Your task to perform on an android device: Open eBay Image 0: 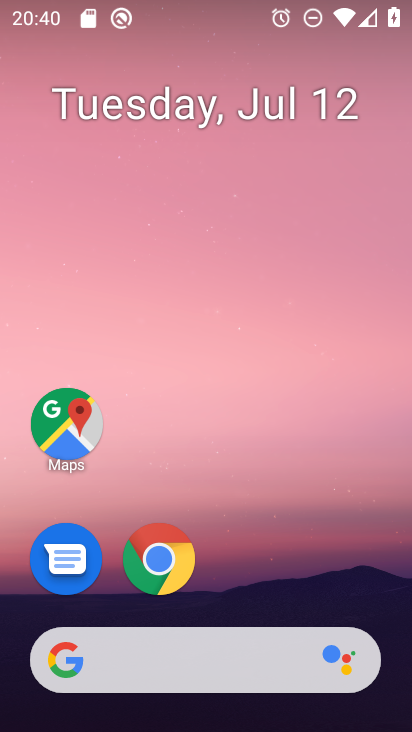
Step 0: drag from (370, 579) to (371, 108)
Your task to perform on an android device: Open eBay Image 1: 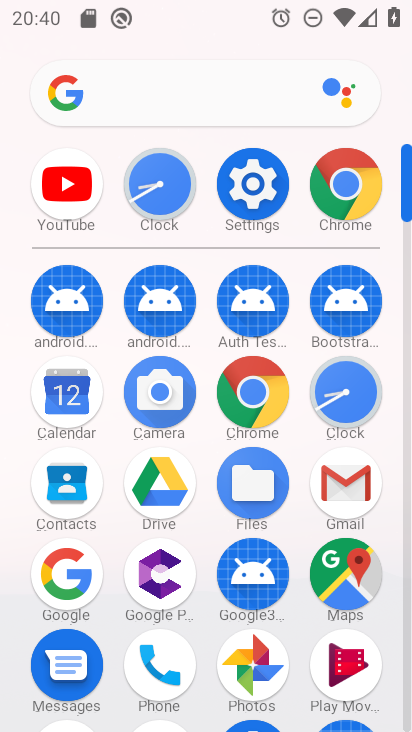
Step 1: click (258, 397)
Your task to perform on an android device: Open eBay Image 2: 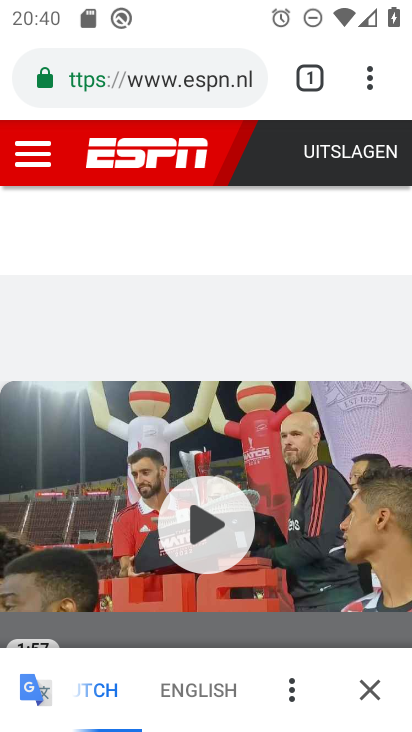
Step 2: click (203, 80)
Your task to perform on an android device: Open eBay Image 3: 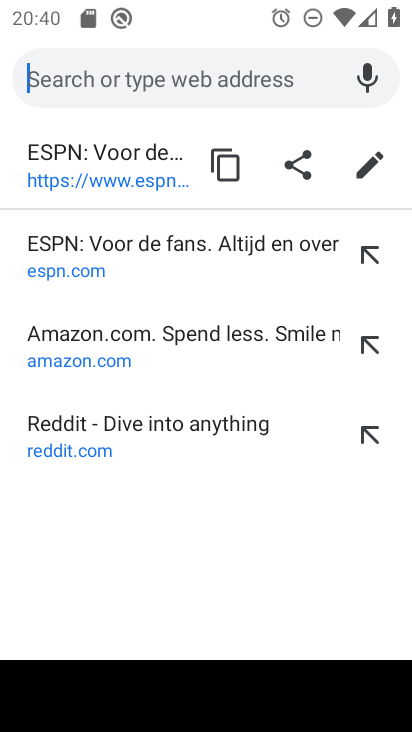
Step 3: type "ebay"
Your task to perform on an android device: Open eBay Image 4: 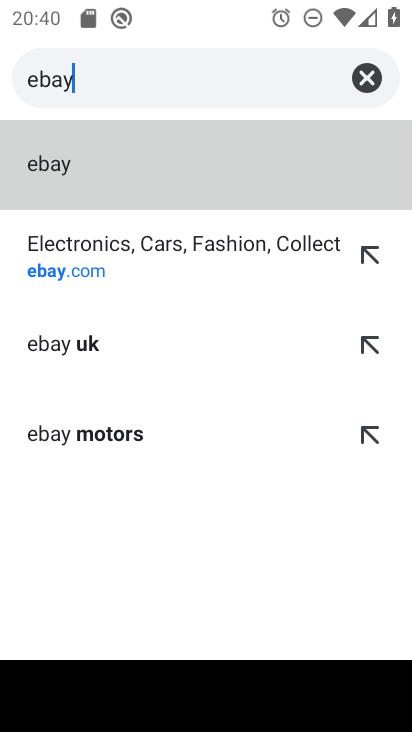
Step 4: click (233, 259)
Your task to perform on an android device: Open eBay Image 5: 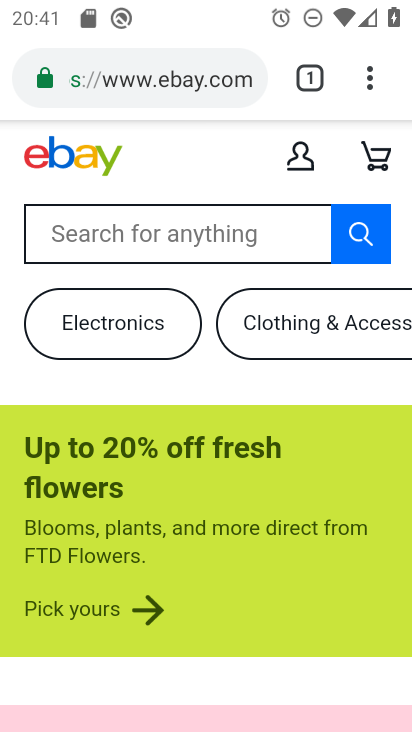
Step 5: task complete